Your task to perform on an android device: delete browsing data in the chrome app Image 0: 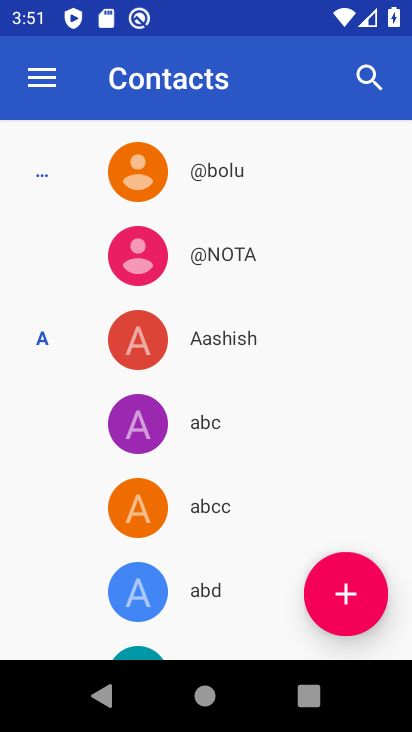
Step 0: press home button
Your task to perform on an android device: delete browsing data in the chrome app Image 1: 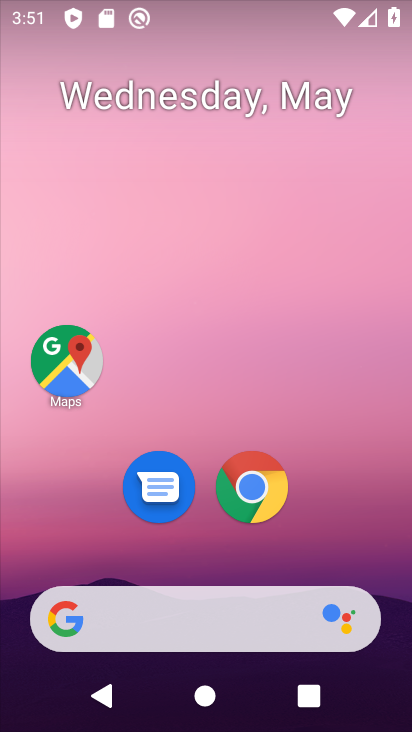
Step 1: drag from (246, 690) to (228, 163)
Your task to perform on an android device: delete browsing data in the chrome app Image 2: 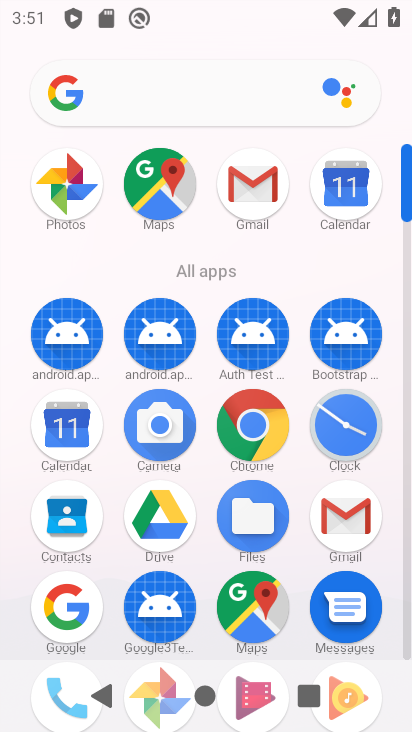
Step 2: click (247, 419)
Your task to perform on an android device: delete browsing data in the chrome app Image 3: 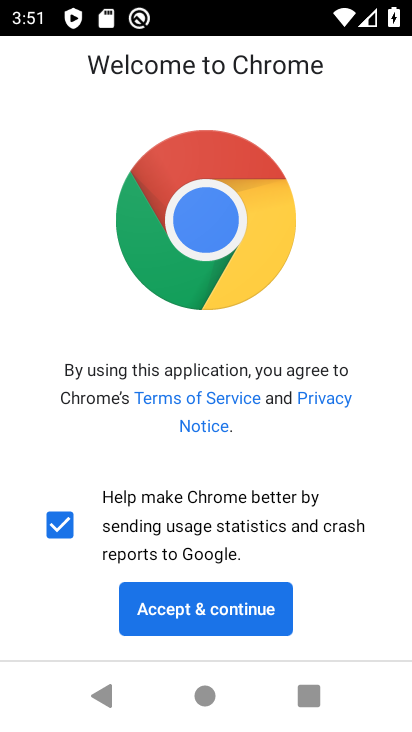
Step 3: click (206, 608)
Your task to perform on an android device: delete browsing data in the chrome app Image 4: 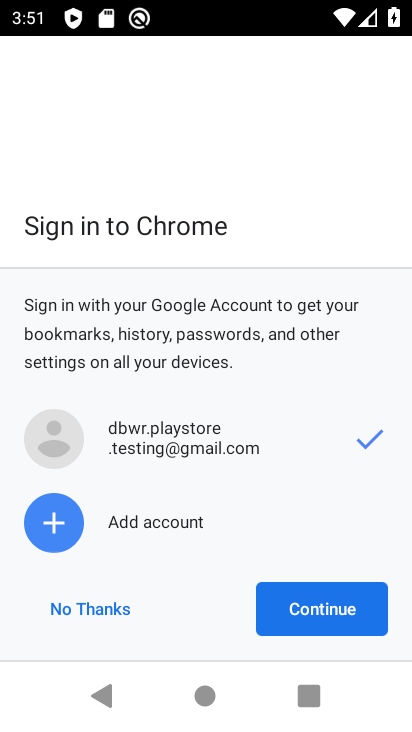
Step 4: click (295, 603)
Your task to perform on an android device: delete browsing data in the chrome app Image 5: 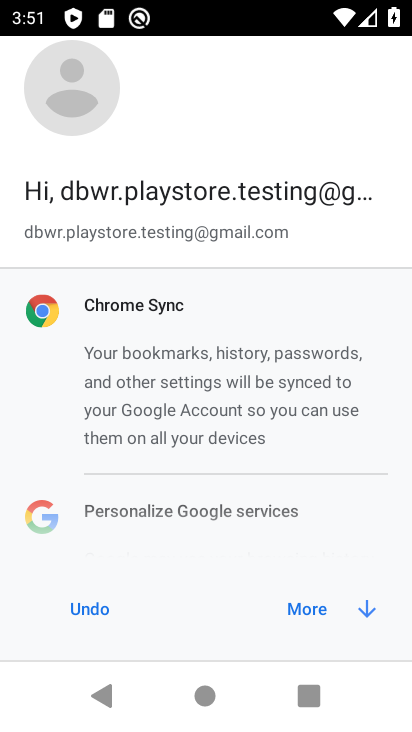
Step 5: click (366, 608)
Your task to perform on an android device: delete browsing data in the chrome app Image 6: 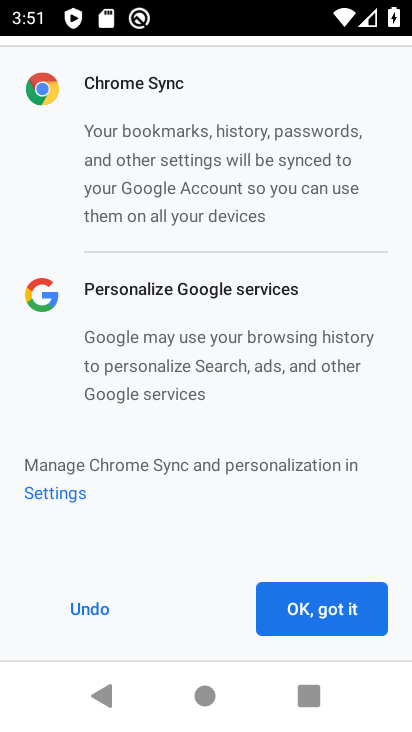
Step 6: click (348, 605)
Your task to perform on an android device: delete browsing data in the chrome app Image 7: 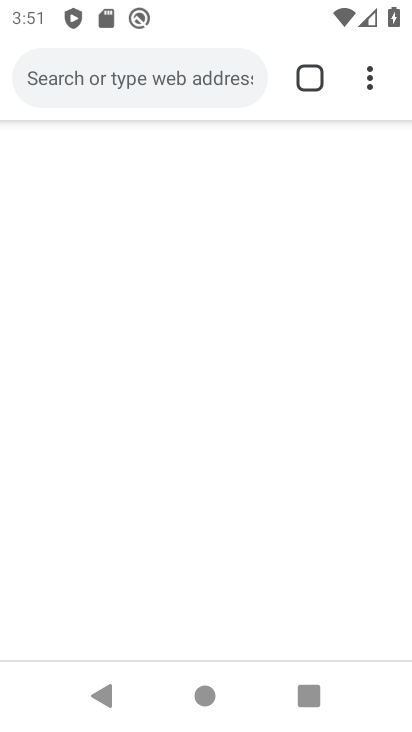
Step 7: click (379, 72)
Your task to perform on an android device: delete browsing data in the chrome app Image 8: 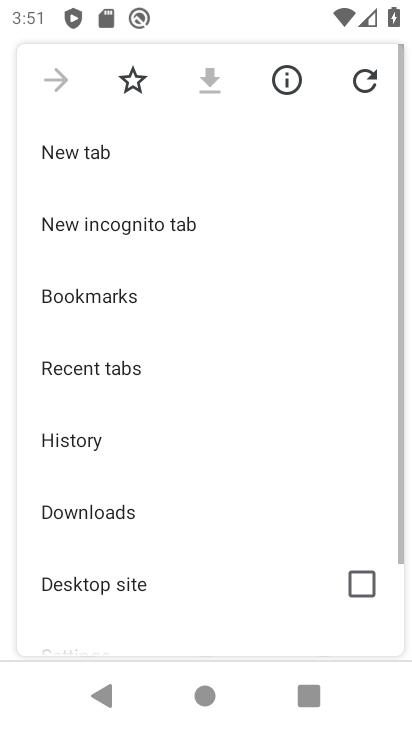
Step 8: click (76, 441)
Your task to perform on an android device: delete browsing data in the chrome app Image 9: 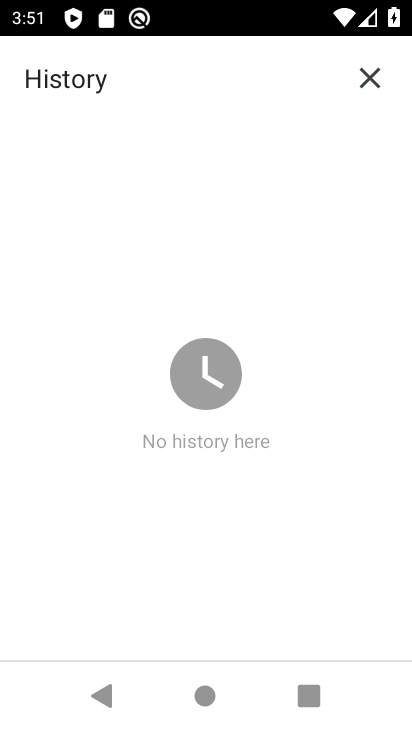
Step 9: task complete